Your task to perform on an android device: install app "Indeed Job Search" Image 0: 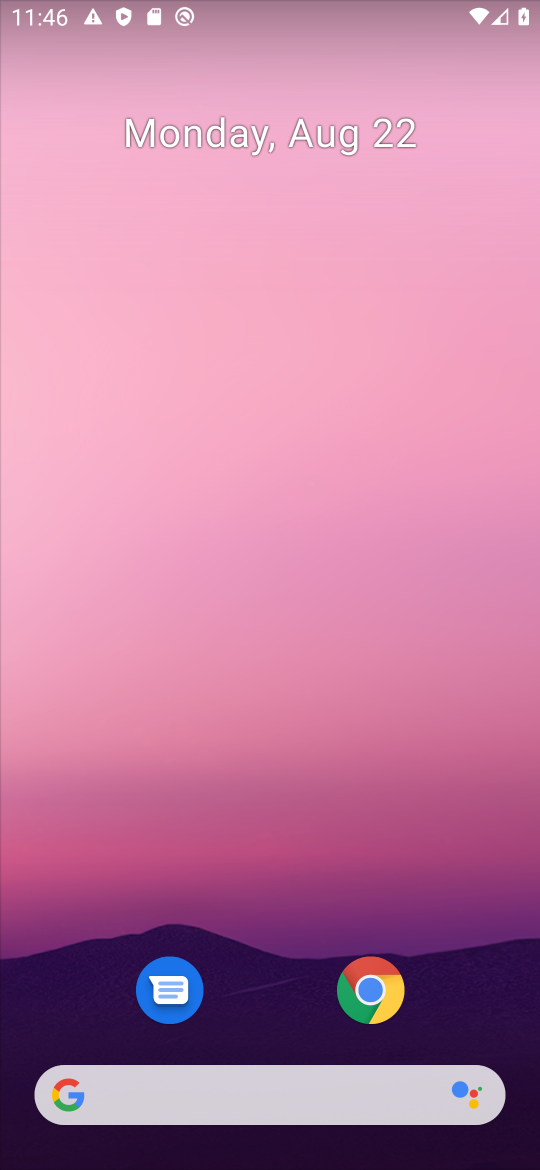
Step 0: drag from (276, 926) to (398, 299)
Your task to perform on an android device: install app "Indeed Job Search" Image 1: 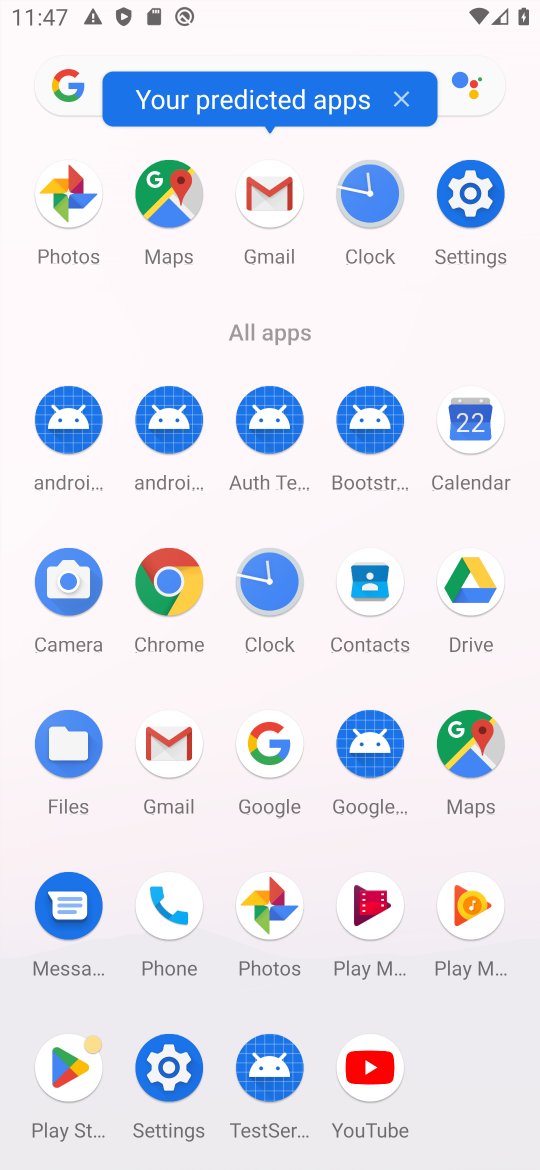
Step 1: click (65, 1061)
Your task to perform on an android device: install app "Indeed Job Search" Image 2: 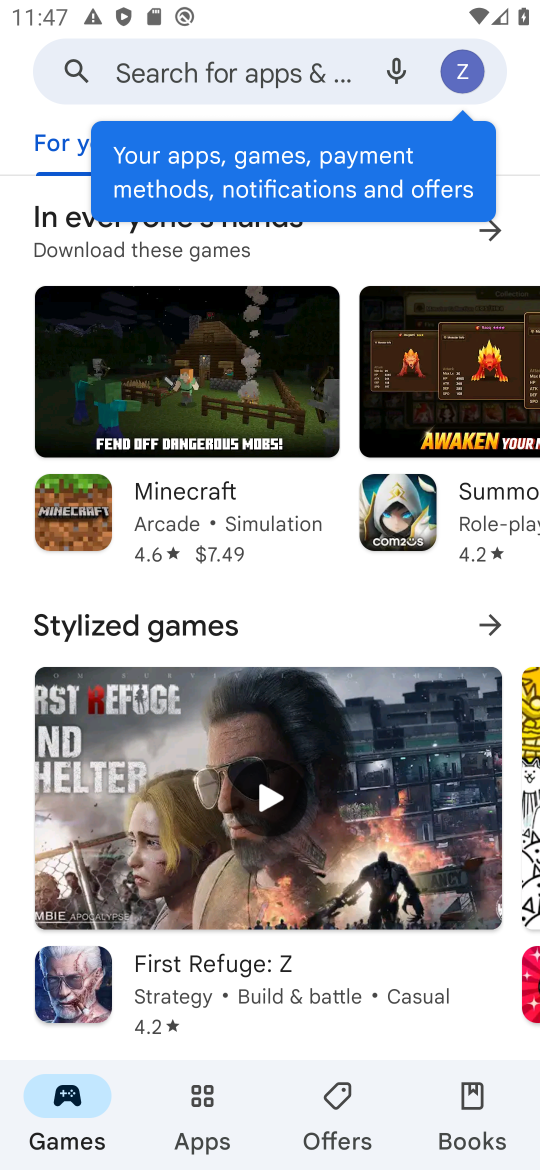
Step 2: click (271, 59)
Your task to perform on an android device: install app "Indeed Job Search" Image 3: 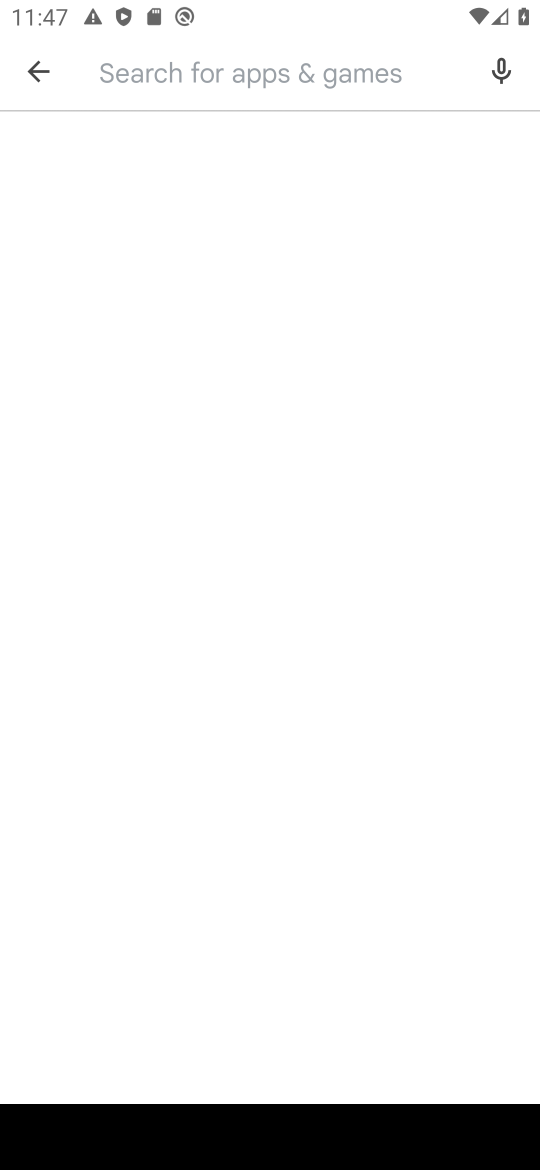
Step 3: type "ndeed Job Search "
Your task to perform on an android device: install app "Indeed Job Search" Image 4: 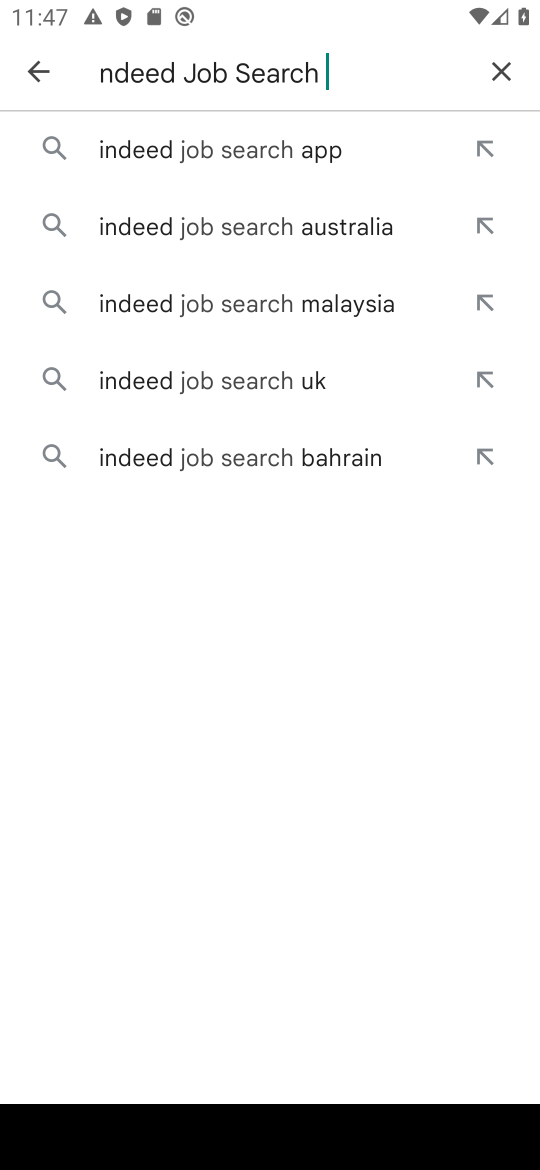
Step 4: click (250, 147)
Your task to perform on an android device: install app "Indeed Job Search" Image 5: 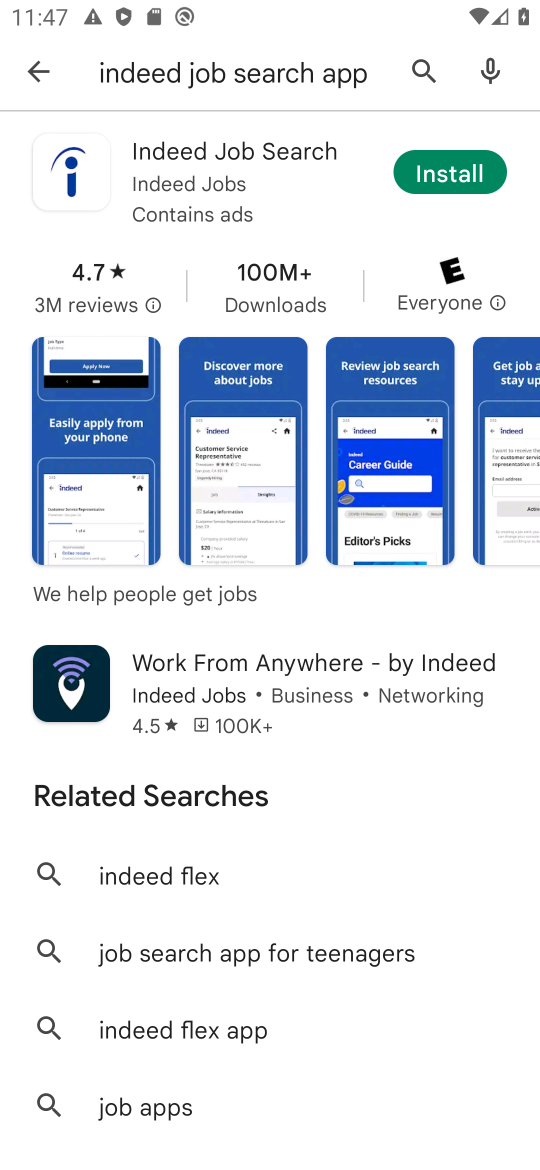
Step 5: click (451, 174)
Your task to perform on an android device: install app "Indeed Job Search" Image 6: 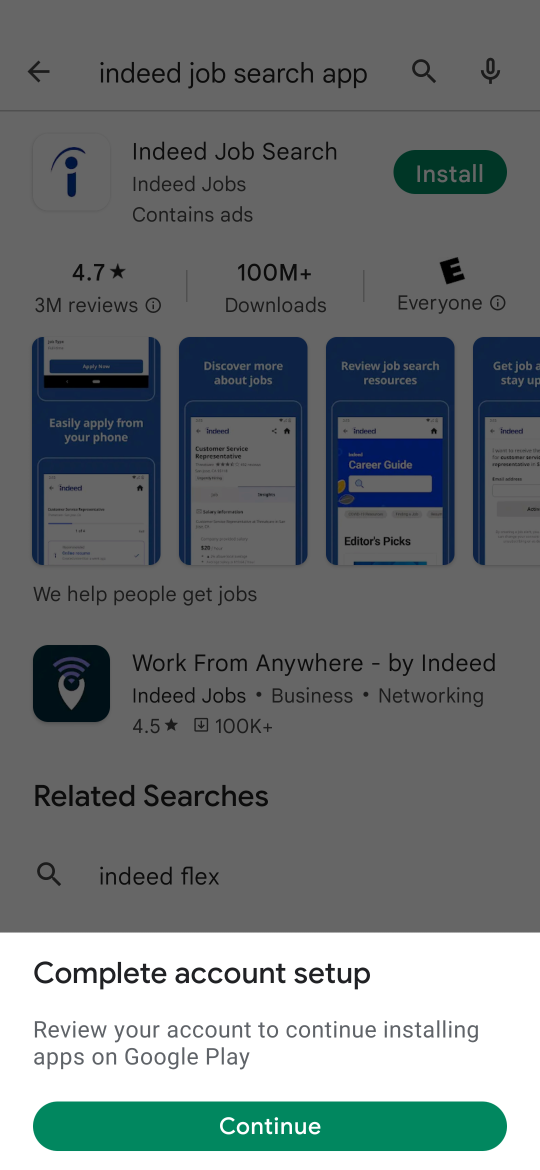
Step 6: task complete